Your task to perform on an android device: Open Reddit.com Image 0: 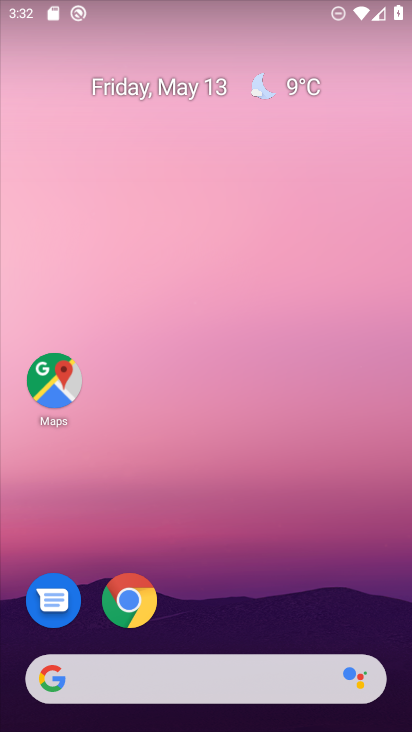
Step 0: drag from (183, 644) to (313, 157)
Your task to perform on an android device: Open Reddit.com Image 1: 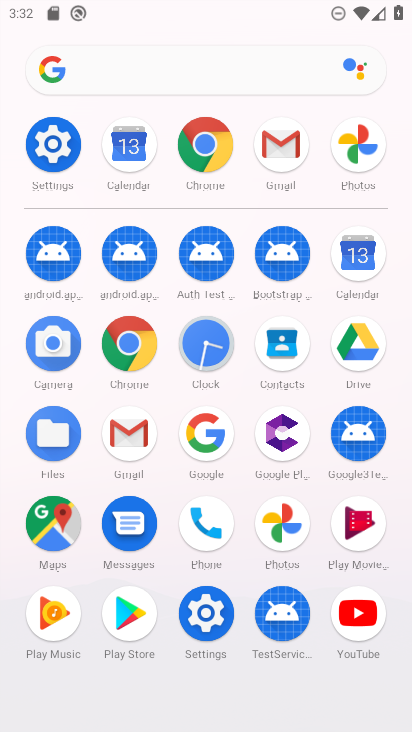
Step 1: click (213, 78)
Your task to perform on an android device: Open Reddit.com Image 2: 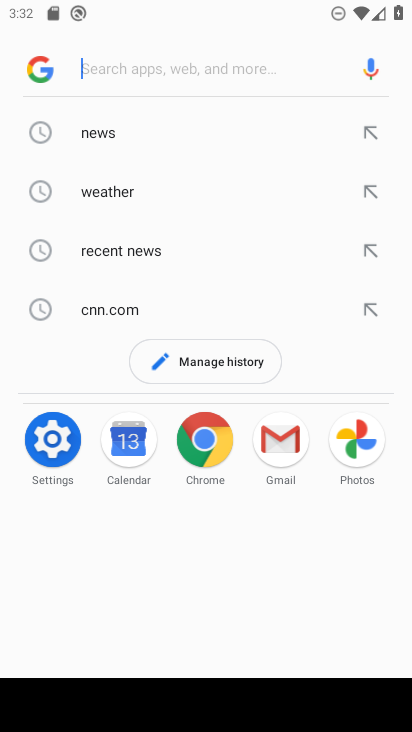
Step 2: type "reddit"
Your task to perform on an android device: Open Reddit.com Image 3: 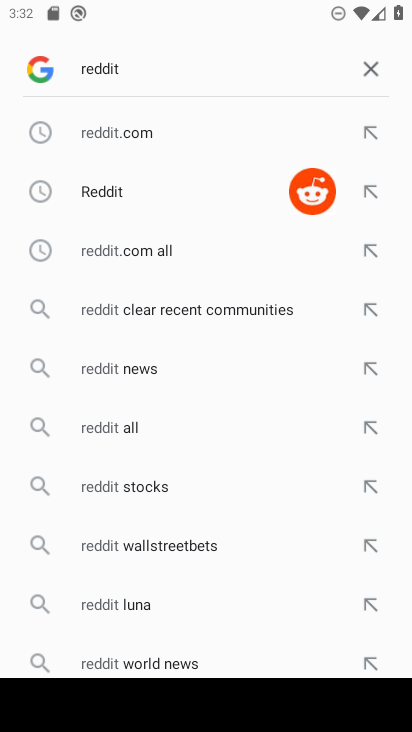
Step 3: click (185, 134)
Your task to perform on an android device: Open Reddit.com Image 4: 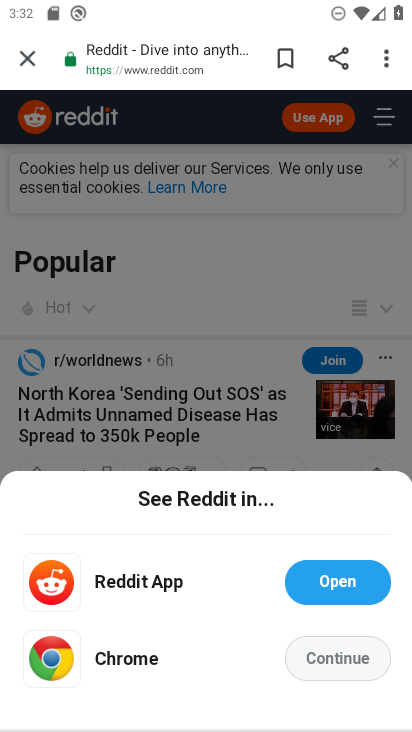
Step 4: task complete